Your task to perform on an android device: Open my contact list Image 0: 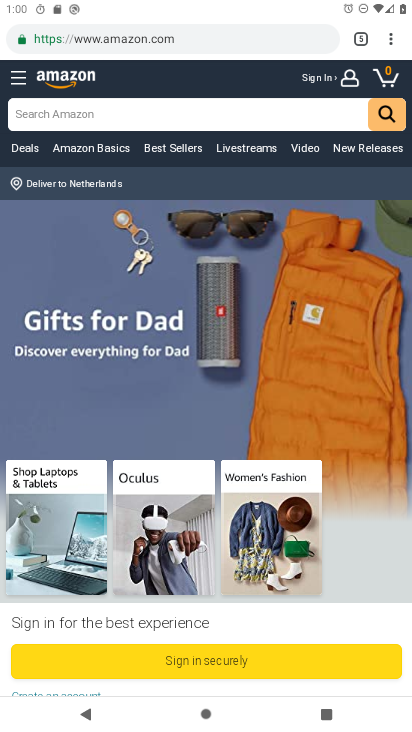
Step 0: press home button
Your task to perform on an android device: Open my contact list Image 1: 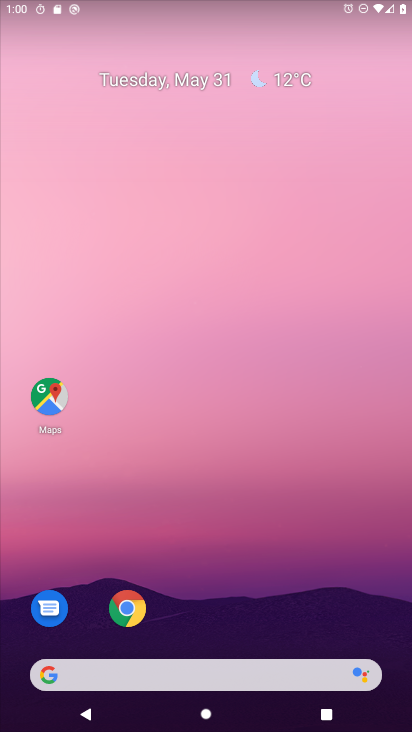
Step 1: drag from (268, 650) to (307, 8)
Your task to perform on an android device: Open my contact list Image 2: 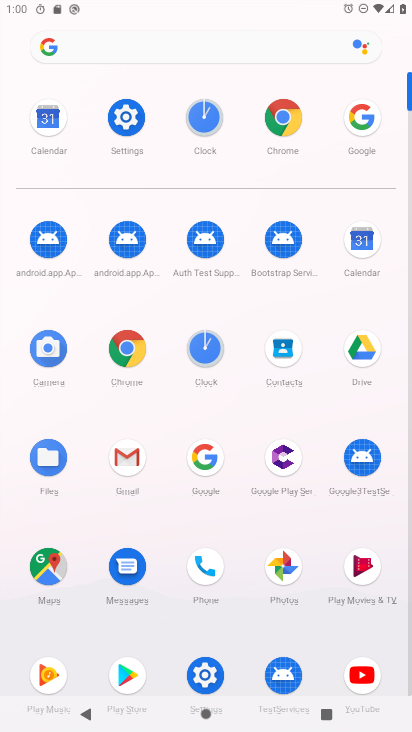
Step 2: click (285, 349)
Your task to perform on an android device: Open my contact list Image 3: 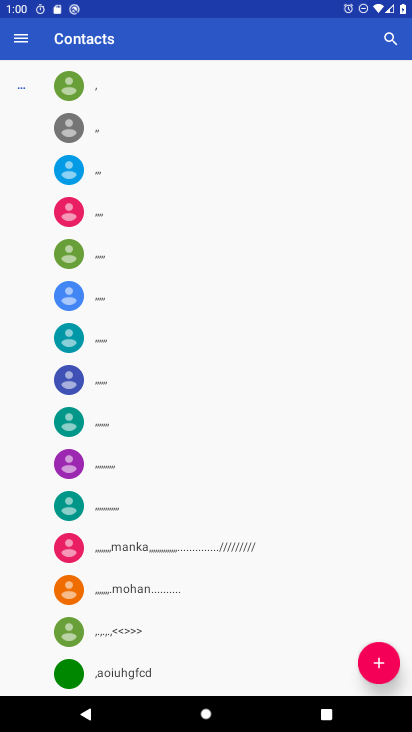
Step 3: task complete